Your task to perform on an android device: Go to location settings Image 0: 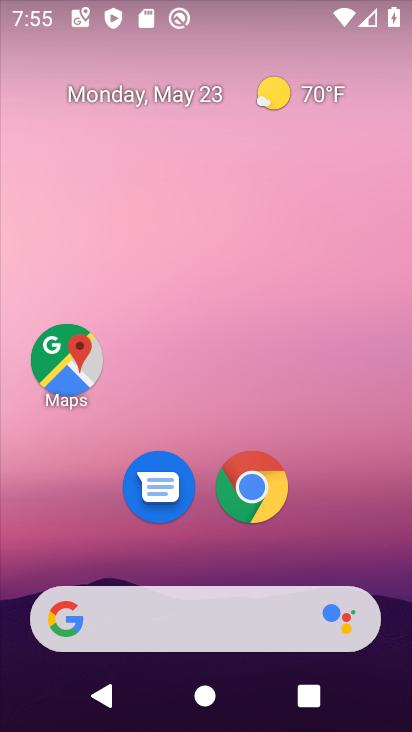
Step 0: drag from (203, 586) to (220, 80)
Your task to perform on an android device: Go to location settings Image 1: 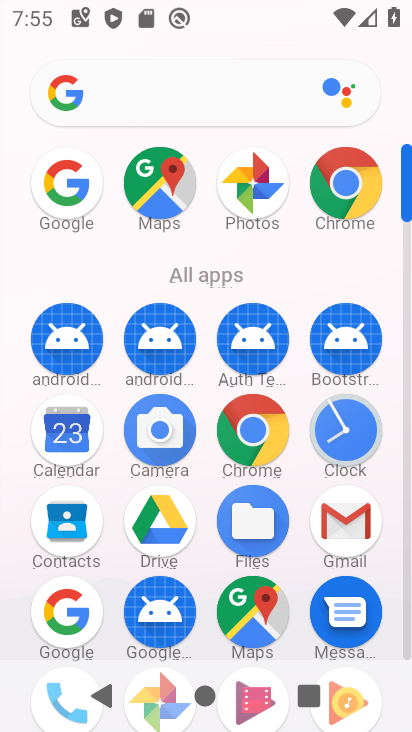
Step 1: drag from (111, 520) to (118, 95)
Your task to perform on an android device: Go to location settings Image 2: 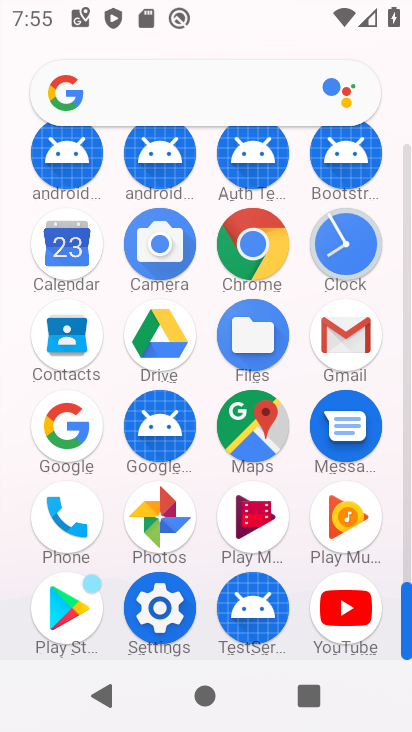
Step 2: click (174, 606)
Your task to perform on an android device: Go to location settings Image 3: 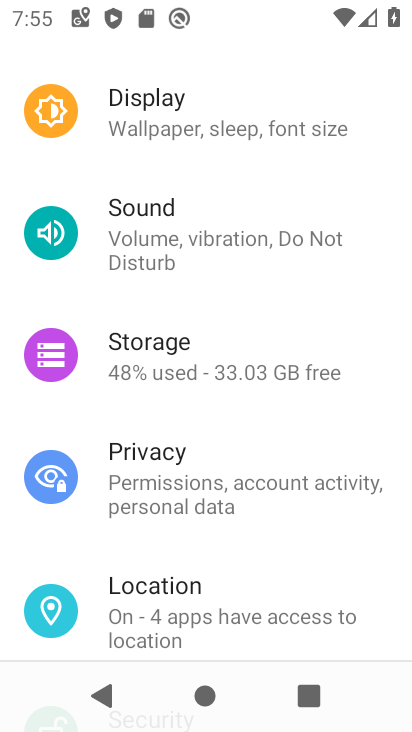
Step 3: click (200, 611)
Your task to perform on an android device: Go to location settings Image 4: 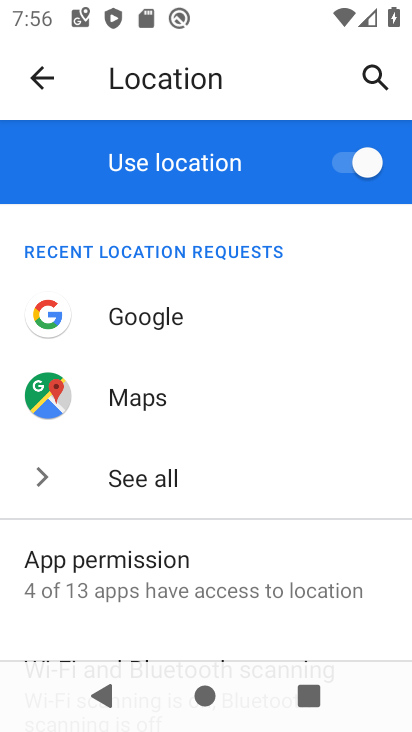
Step 4: task complete